Your task to perform on an android device: turn off notifications in google photos Image 0: 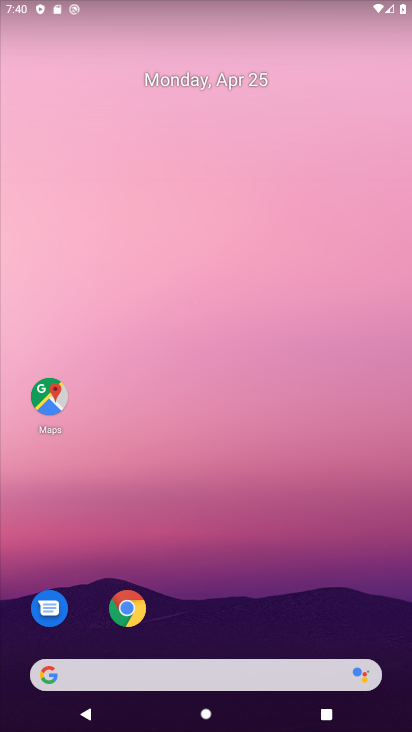
Step 0: drag from (307, 553) to (348, 217)
Your task to perform on an android device: turn off notifications in google photos Image 1: 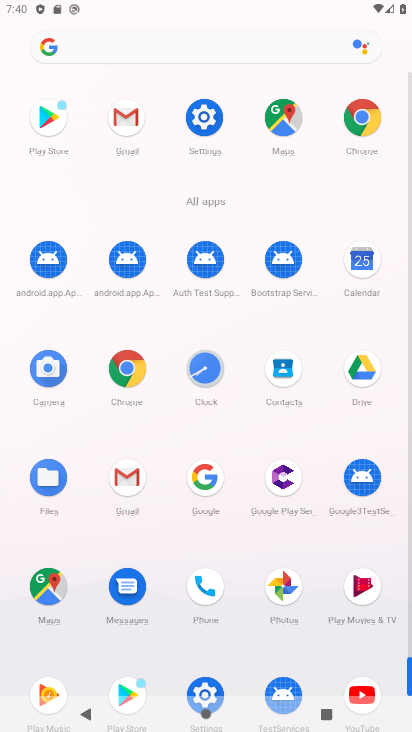
Step 1: click (210, 123)
Your task to perform on an android device: turn off notifications in google photos Image 2: 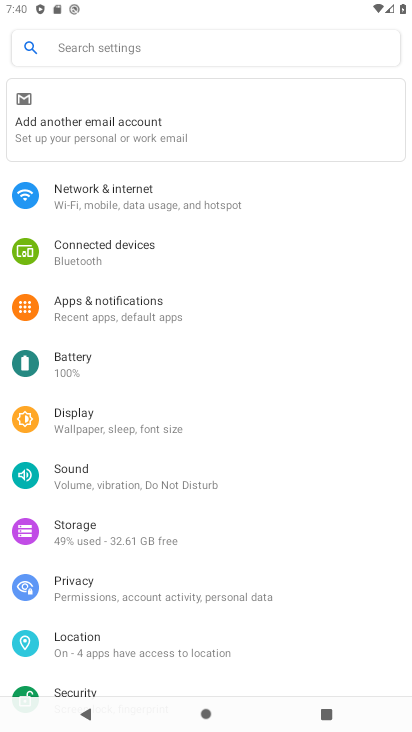
Step 2: press home button
Your task to perform on an android device: turn off notifications in google photos Image 3: 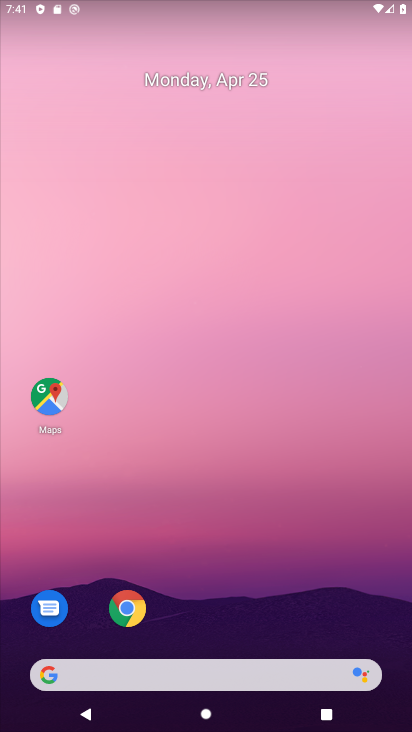
Step 3: drag from (302, 586) to (321, 125)
Your task to perform on an android device: turn off notifications in google photos Image 4: 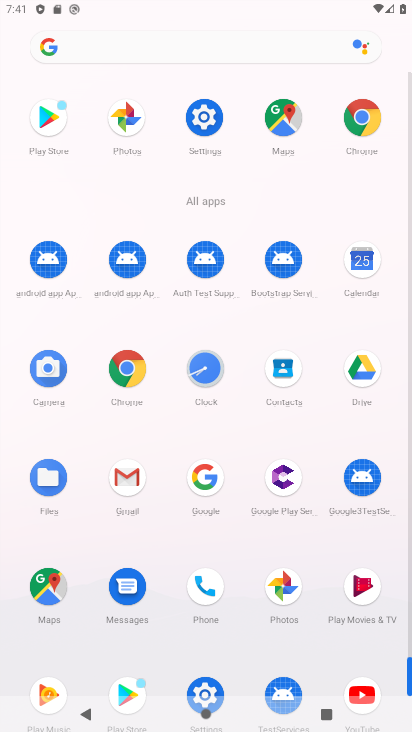
Step 4: click (286, 590)
Your task to perform on an android device: turn off notifications in google photos Image 5: 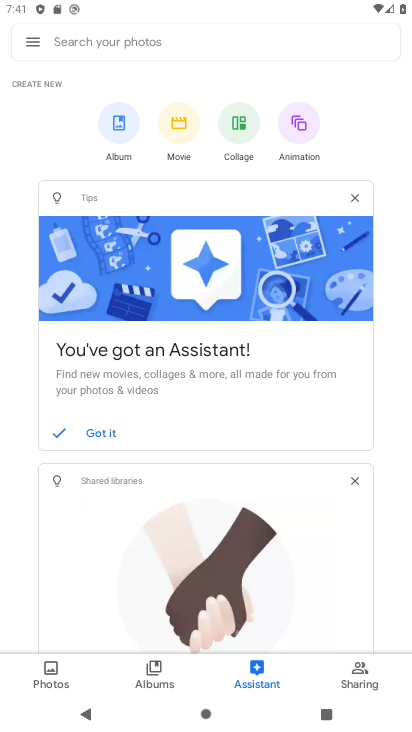
Step 5: click (36, 47)
Your task to perform on an android device: turn off notifications in google photos Image 6: 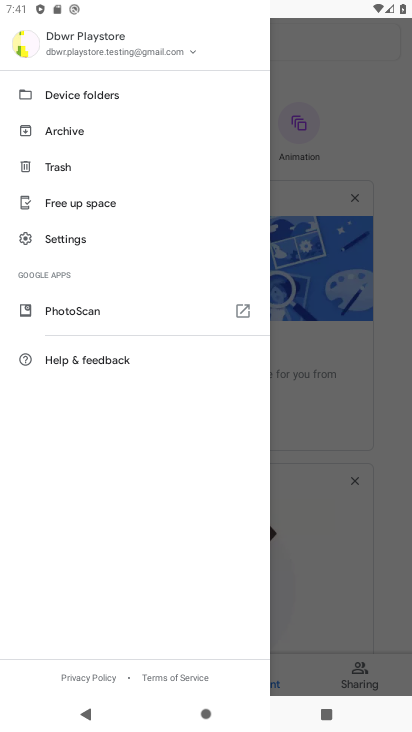
Step 6: click (75, 243)
Your task to perform on an android device: turn off notifications in google photos Image 7: 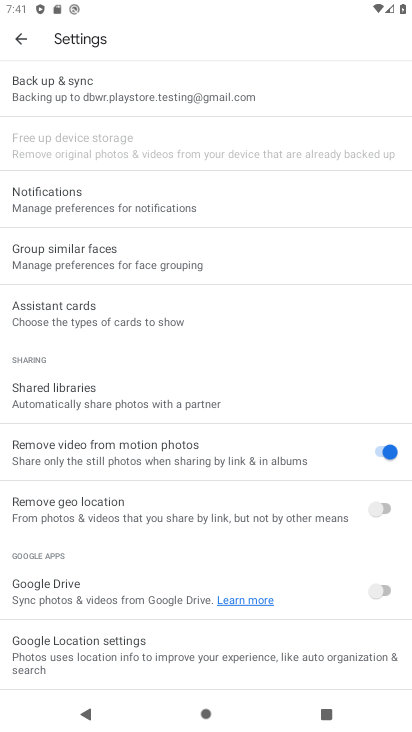
Step 7: click (104, 193)
Your task to perform on an android device: turn off notifications in google photos Image 8: 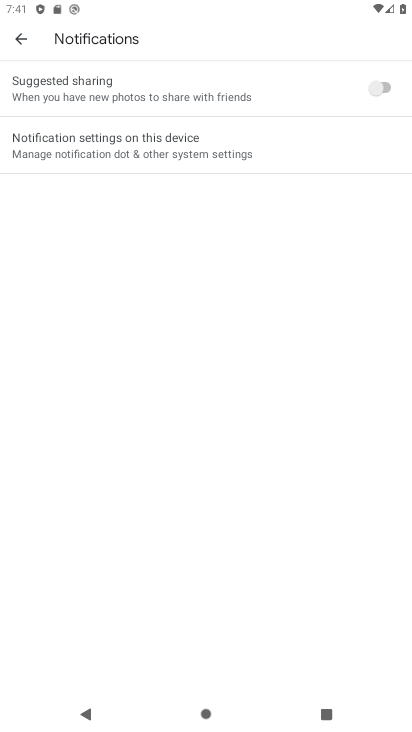
Step 8: click (129, 146)
Your task to perform on an android device: turn off notifications in google photos Image 9: 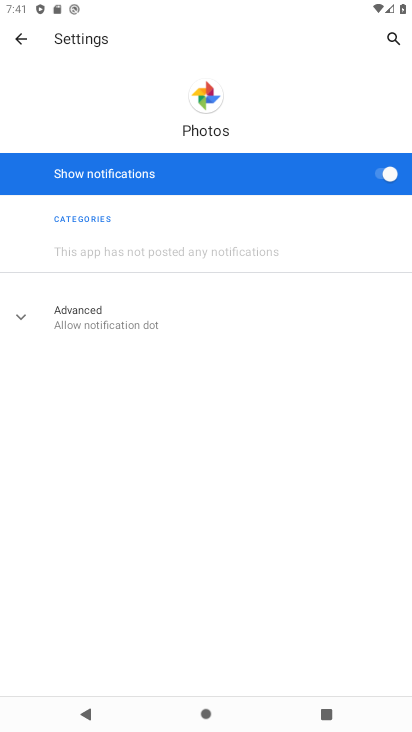
Step 9: click (378, 170)
Your task to perform on an android device: turn off notifications in google photos Image 10: 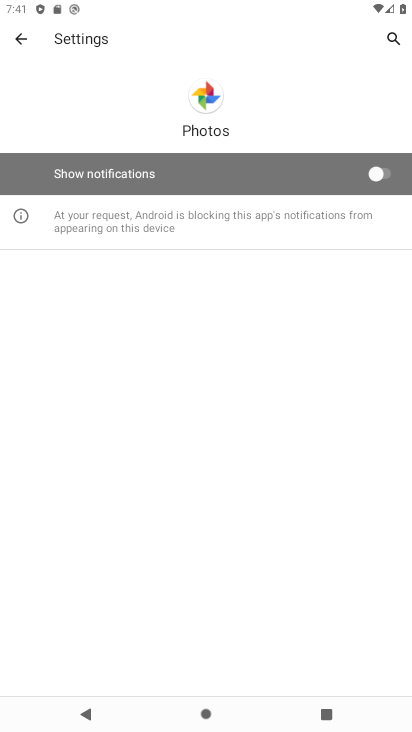
Step 10: task complete